Your task to perform on an android device: Open the Play Movies app and select the watchlist tab. Image 0: 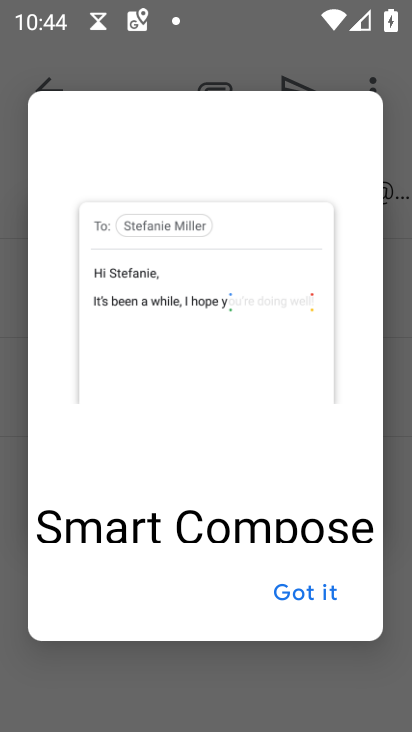
Step 0: press home button
Your task to perform on an android device: Open the Play Movies app and select the watchlist tab. Image 1: 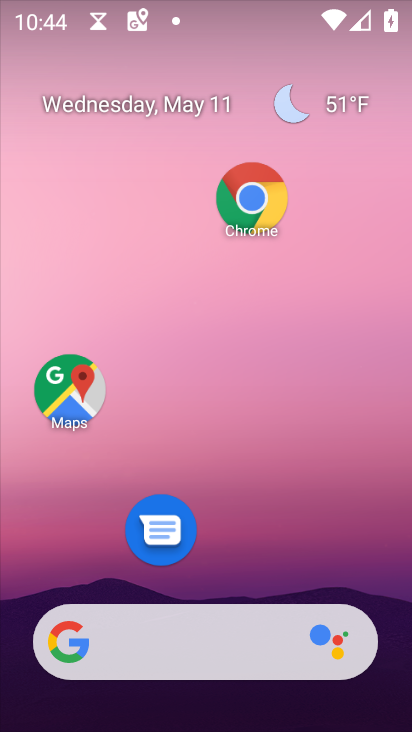
Step 1: drag from (299, 568) to (306, 77)
Your task to perform on an android device: Open the Play Movies app and select the watchlist tab. Image 2: 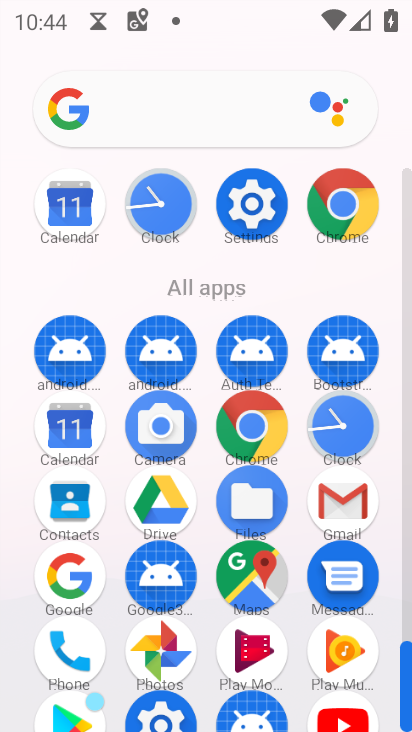
Step 2: drag from (333, 629) to (275, 249)
Your task to perform on an android device: Open the Play Movies app and select the watchlist tab. Image 3: 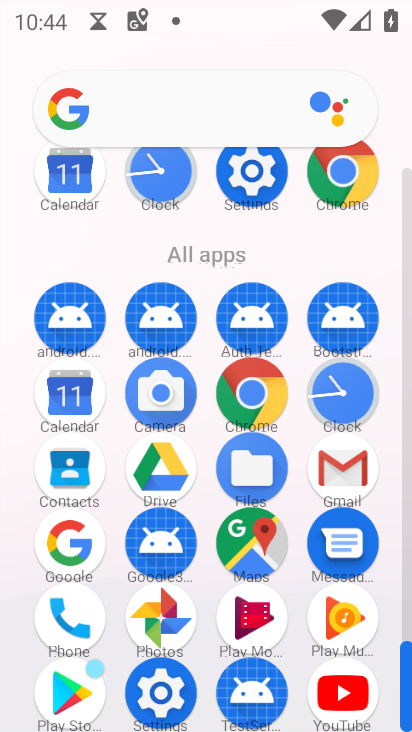
Step 3: click (249, 620)
Your task to perform on an android device: Open the Play Movies app and select the watchlist tab. Image 4: 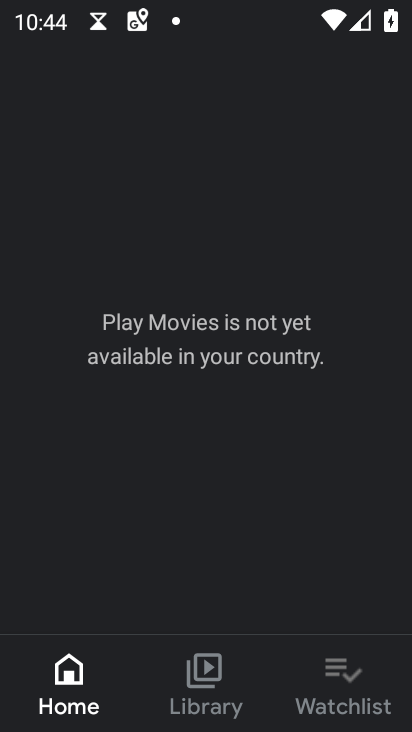
Step 4: click (355, 680)
Your task to perform on an android device: Open the Play Movies app and select the watchlist tab. Image 5: 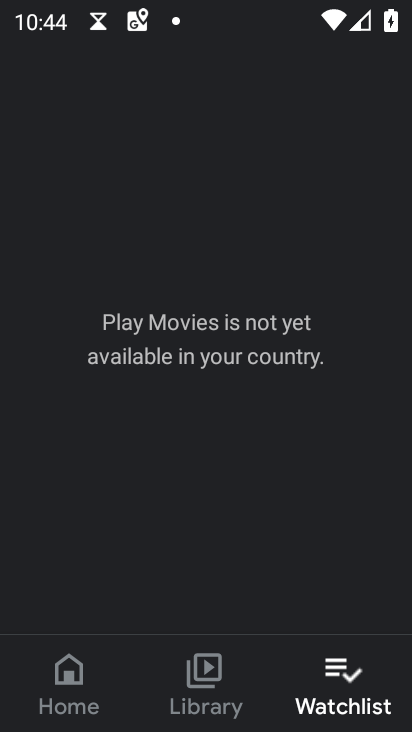
Step 5: task complete